Your task to perform on an android device: turn pop-ups on in chrome Image 0: 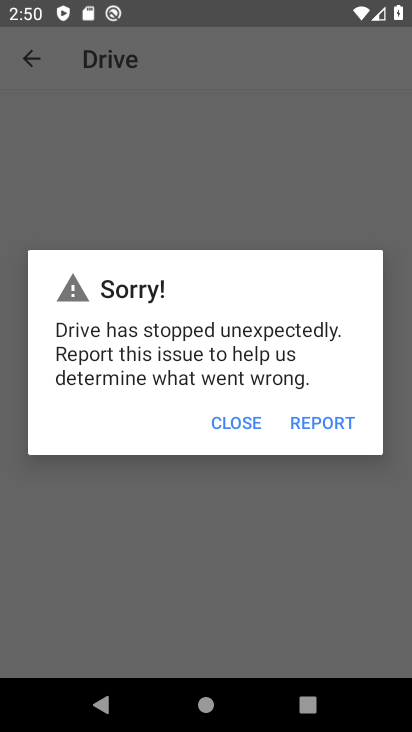
Step 0: press home button
Your task to perform on an android device: turn pop-ups on in chrome Image 1: 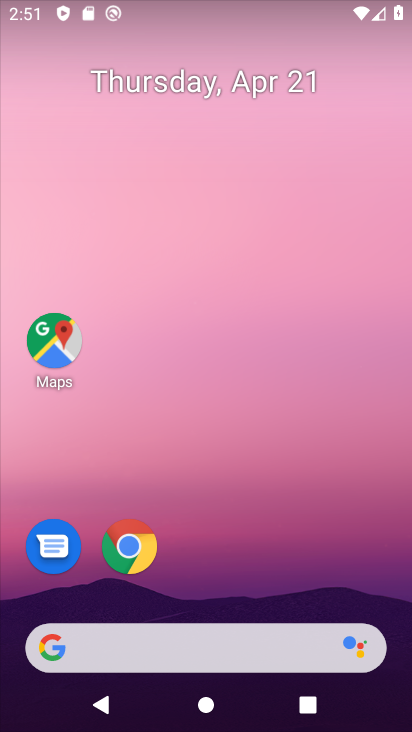
Step 1: drag from (259, 688) to (276, 167)
Your task to perform on an android device: turn pop-ups on in chrome Image 2: 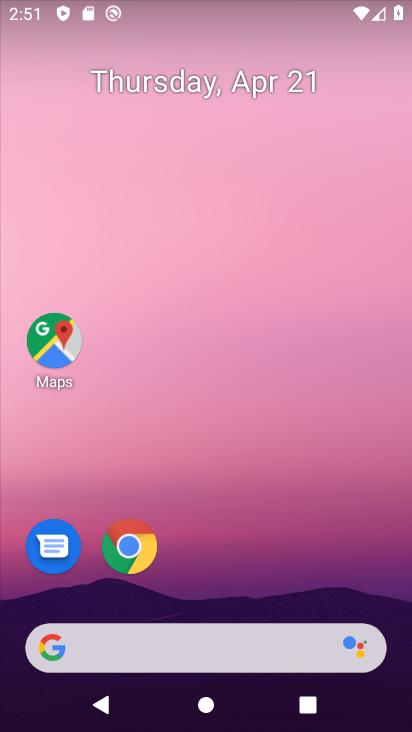
Step 2: drag from (244, 555) to (264, 52)
Your task to perform on an android device: turn pop-ups on in chrome Image 3: 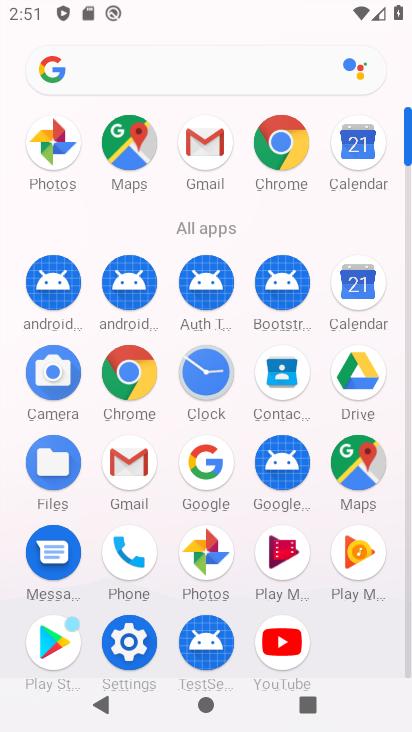
Step 3: click (135, 380)
Your task to perform on an android device: turn pop-ups on in chrome Image 4: 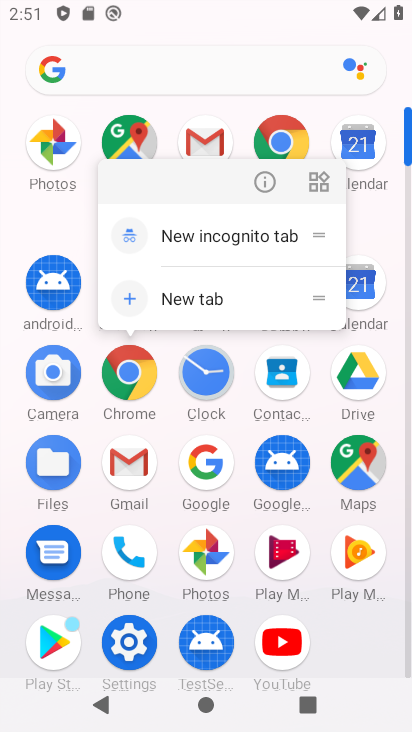
Step 4: click (151, 377)
Your task to perform on an android device: turn pop-ups on in chrome Image 5: 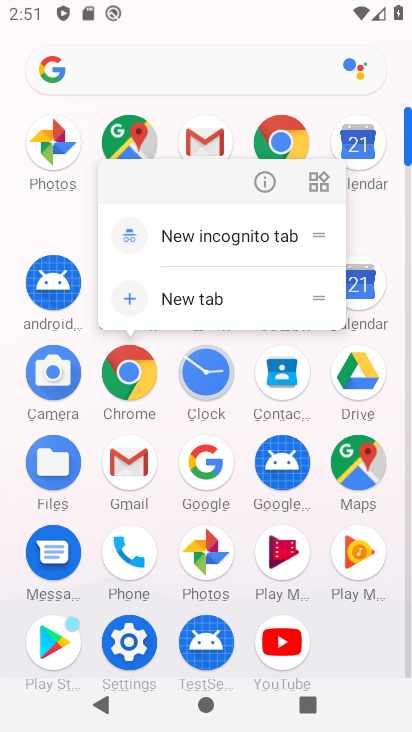
Step 5: click (133, 372)
Your task to perform on an android device: turn pop-ups on in chrome Image 6: 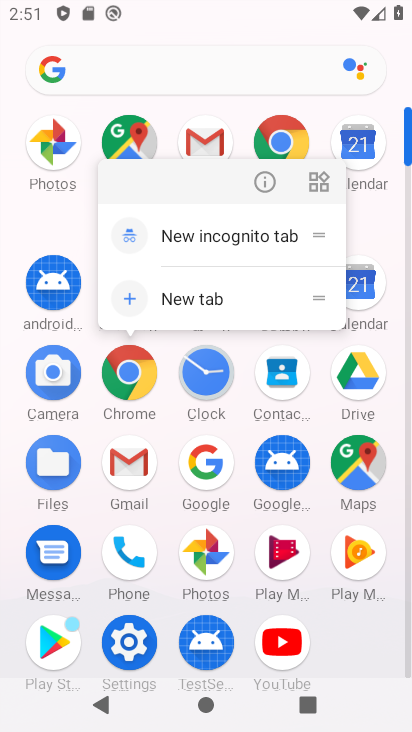
Step 6: click (133, 372)
Your task to perform on an android device: turn pop-ups on in chrome Image 7: 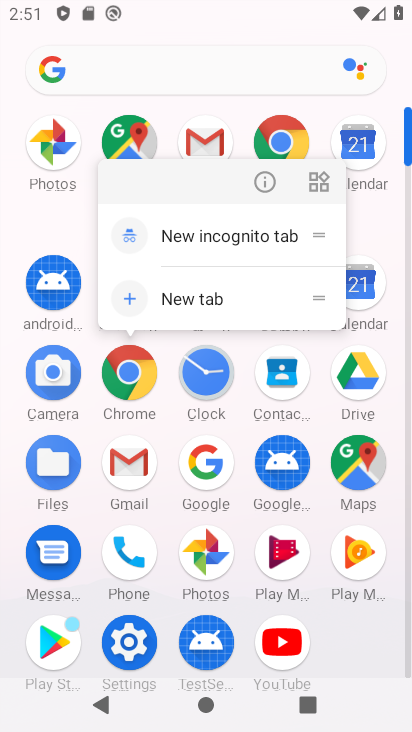
Step 7: click (133, 372)
Your task to perform on an android device: turn pop-ups on in chrome Image 8: 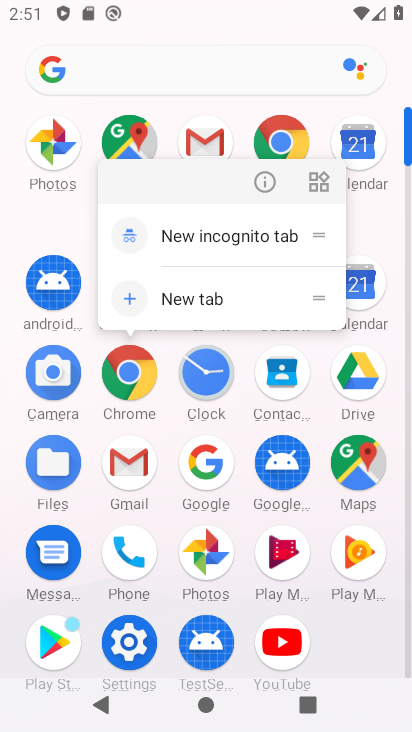
Step 8: click (133, 372)
Your task to perform on an android device: turn pop-ups on in chrome Image 9: 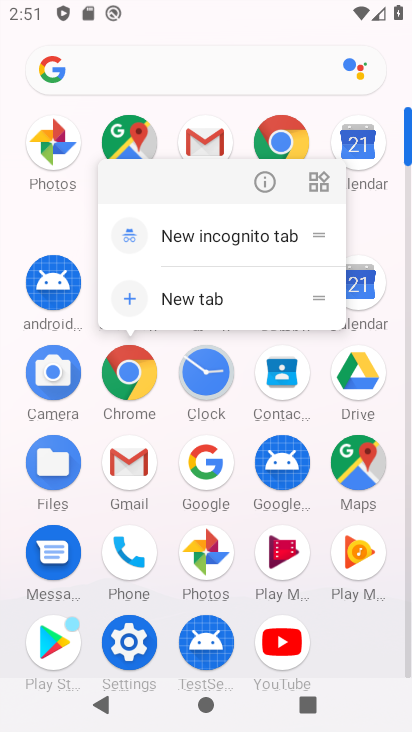
Step 9: click (133, 372)
Your task to perform on an android device: turn pop-ups on in chrome Image 10: 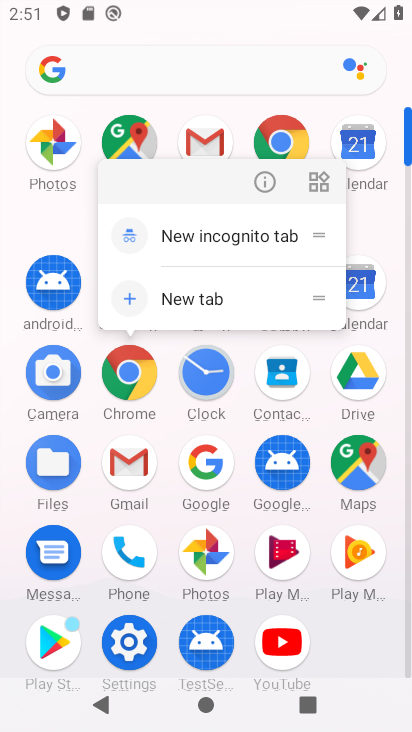
Step 10: click (133, 372)
Your task to perform on an android device: turn pop-ups on in chrome Image 11: 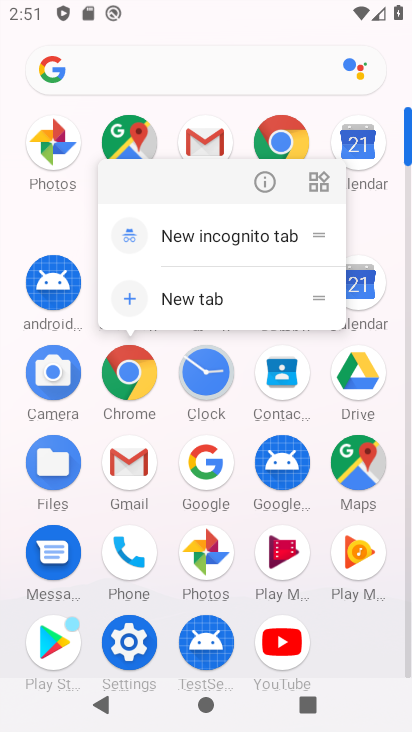
Step 11: click (133, 372)
Your task to perform on an android device: turn pop-ups on in chrome Image 12: 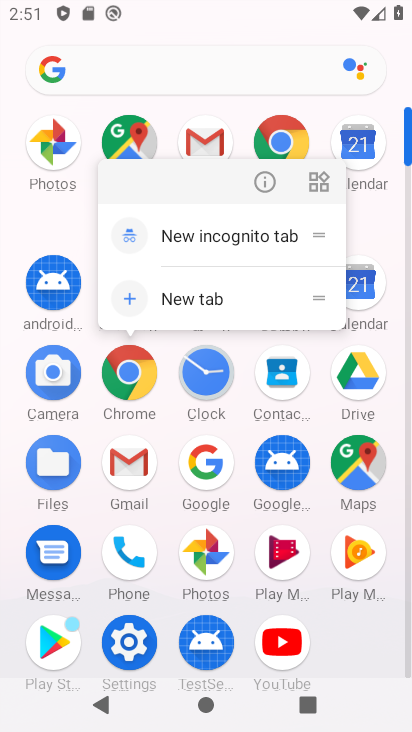
Step 12: click (133, 372)
Your task to perform on an android device: turn pop-ups on in chrome Image 13: 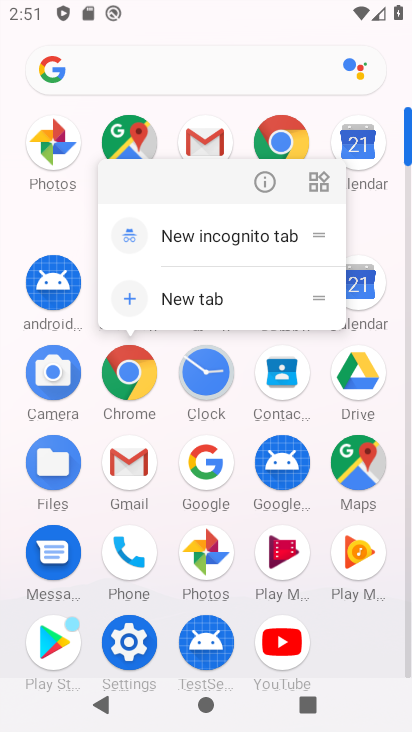
Step 13: click (136, 361)
Your task to perform on an android device: turn pop-ups on in chrome Image 14: 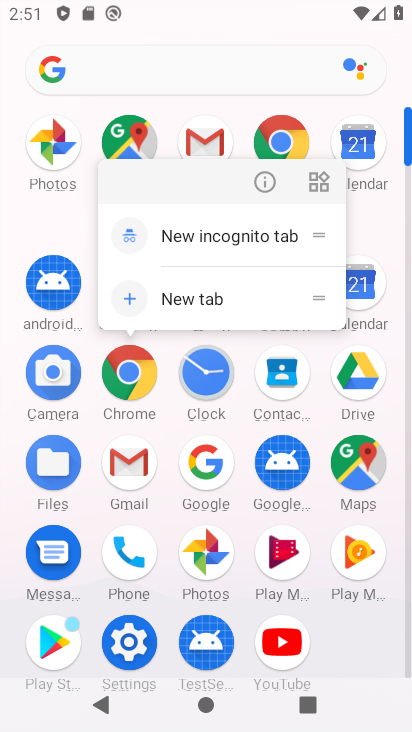
Step 14: click (136, 361)
Your task to perform on an android device: turn pop-ups on in chrome Image 15: 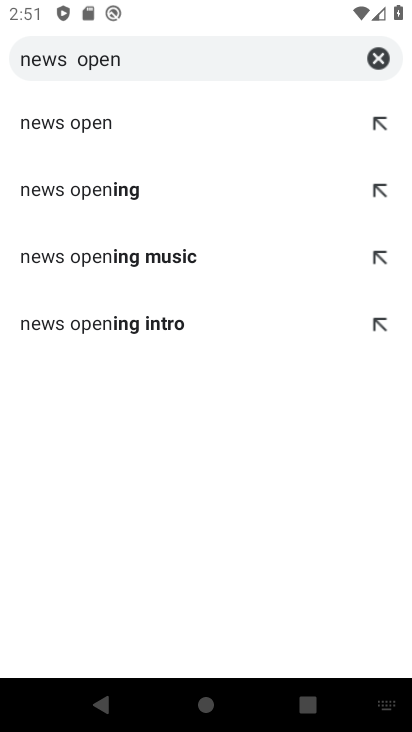
Step 15: click (378, 61)
Your task to perform on an android device: turn pop-ups on in chrome Image 16: 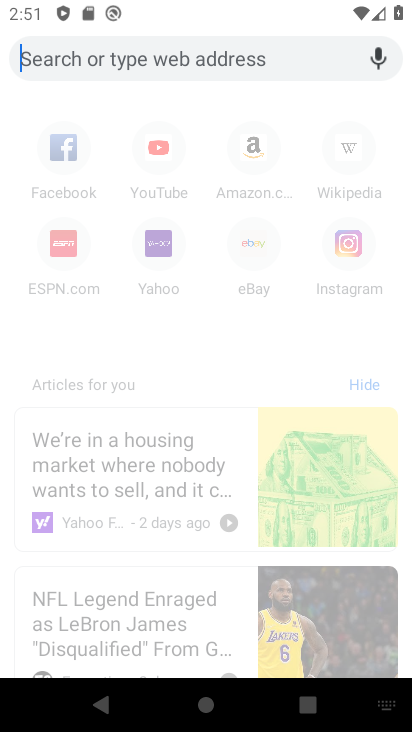
Step 16: click (265, 31)
Your task to perform on an android device: turn pop-ups on in chrome Image 17: 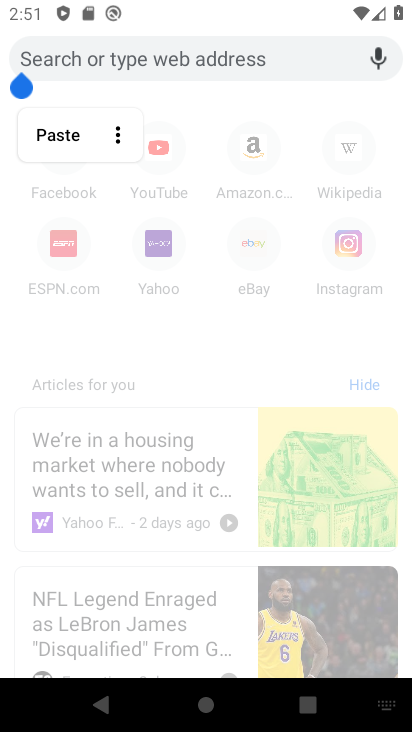
Step 17: click (400, 40)
Your task to perform on an android device: turn pop-ups on in chrome Image 18: 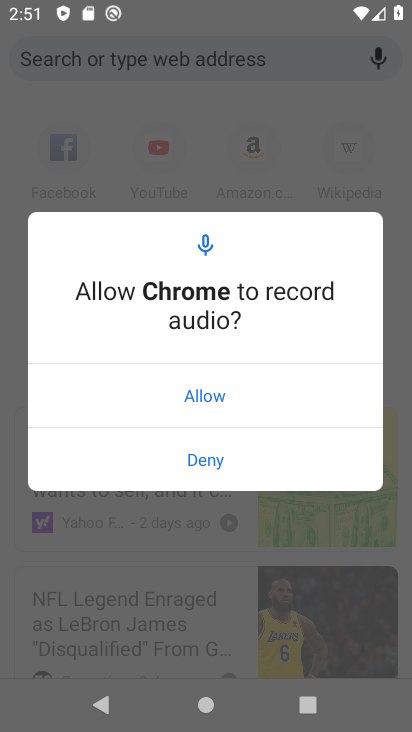
Step 18: click (327, 57)
Your task to perform on an android device: turn pop-ups on in chrome Image 19: 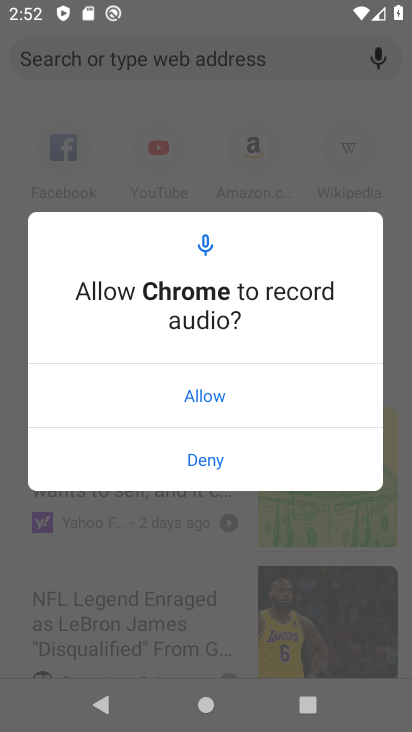
Step 19: click (212, 460)
Your task to perform on an android device: turn pop-ups on in chrome Image 20: 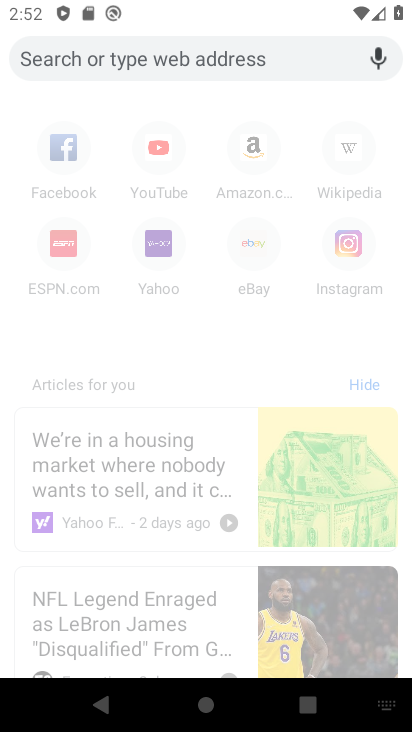
Step 20: click (394, 39)
Your task to perform on an android device: turn pop-ups on in chrome Image 21: 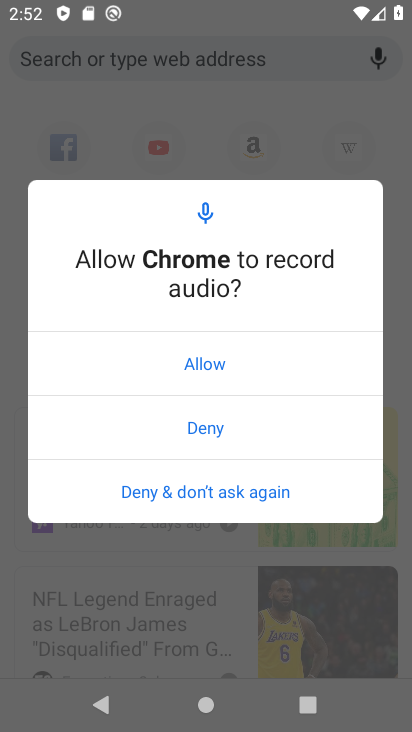
Step 21: click (209, 494)
Your task to perform on an android device: turn pop-ups on in chrome Image 22: 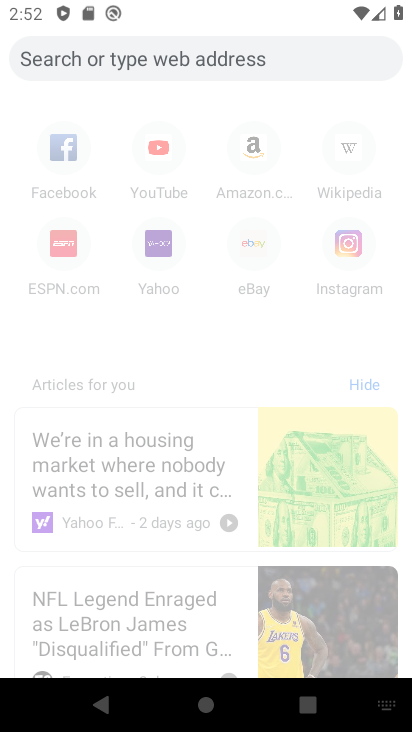
Step 22: click (394, 35)
Your task to perform on an android device: turn pop-ups on in chrome Image 23: 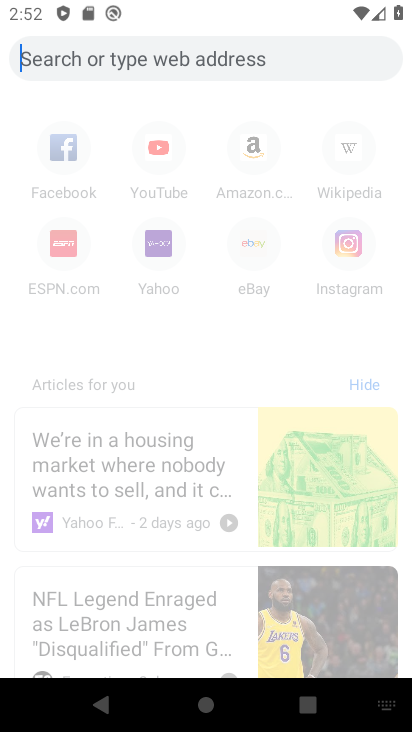
Step 23: click (205, 107)
Your task to perform on an android device: turn pop-ups on in chrome Image 24: 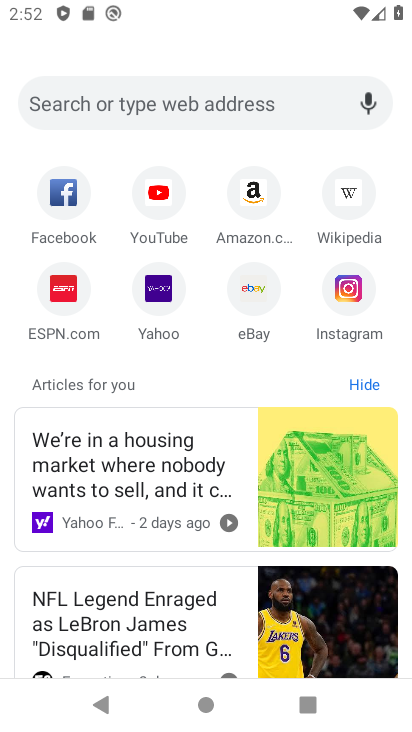
Step 24: click (376, 51)
Your task to perform on an android device: turn pop-ups on in chrome Image 25: 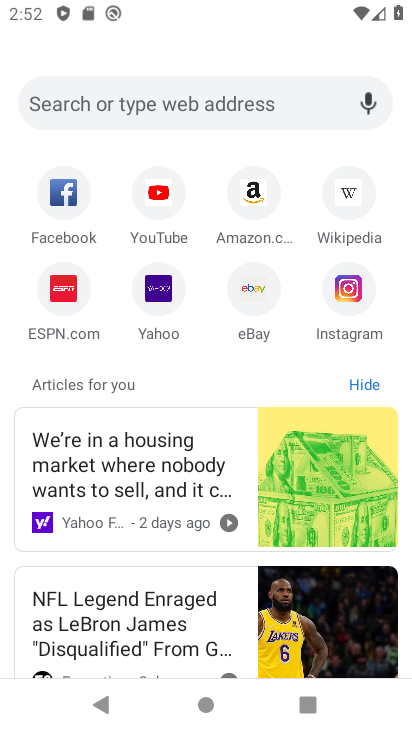
Step 25: click (390, 37)
Your task to perform on an android device: turn pop-ups on in chrome Image 26: 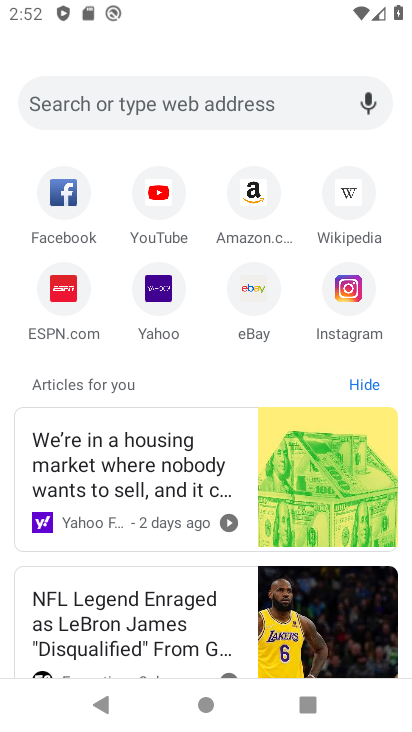
Step 26: click (252, 66)
Your task to perform on an android device: turn pop-ups on in chrome Image 27: 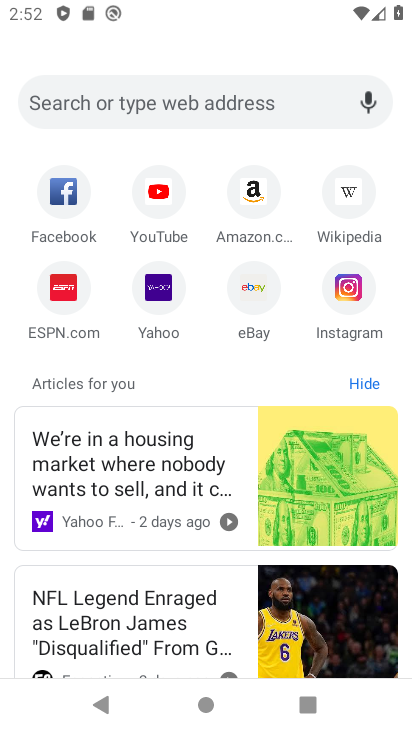
Step 27: click (377, 59)
Your task to perform on an android device: turn pop-ups on in chrome Image 28: 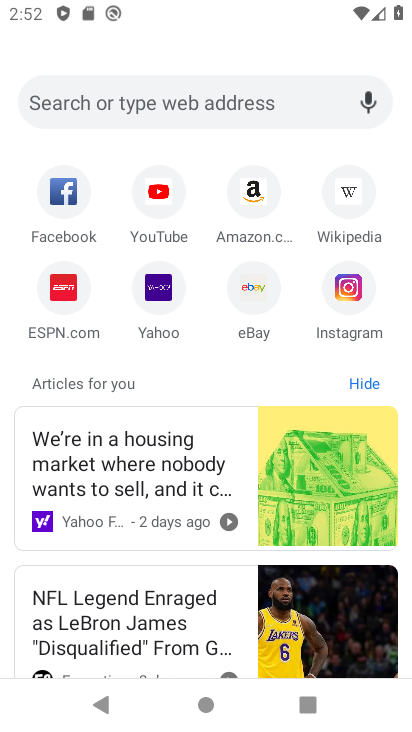
Step 28: click (54, 60)
Your task to perform on an android device: turn pop-ups on in chrome Image 29: 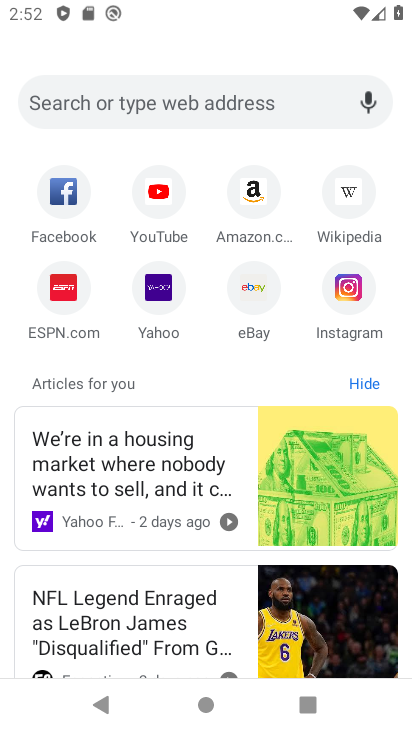
Step 29: task complete